Your task to perform on an android device: Open the Play Movies app and select the watchlist tab. Image 0: 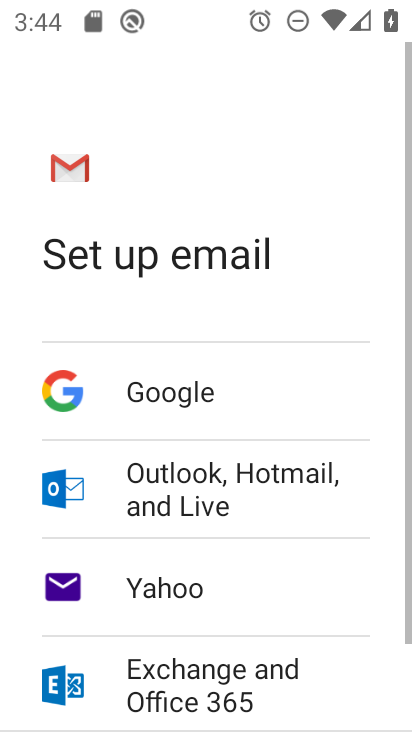
Step 0: press home button
Your task to perform on an android device: Open the Play Movies app and select the watchlist tab. Image 1: 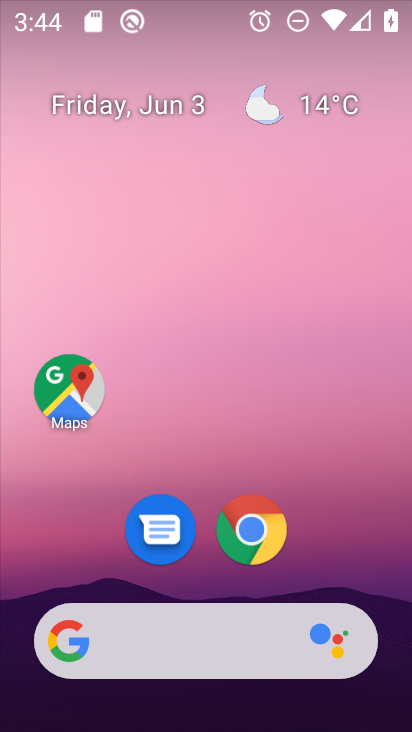
Step 1: drag from (370, 588) to (356, 135)
Your task to perform on an android device: Open the Play Movies app and select the watchlist tab. Image 2: 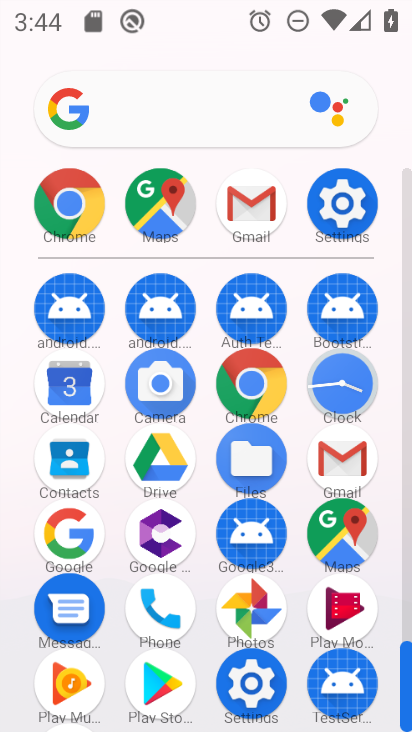
Step 2: click (344, 608)
Your task to perform on an android device: Open the Play Movies app and select the watchlist tab. Image 3: 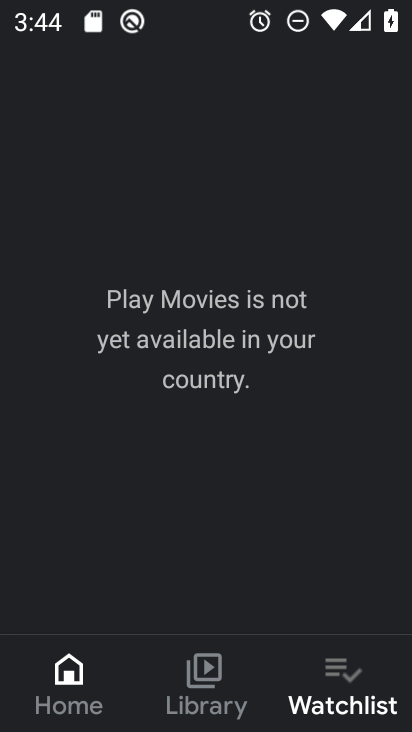
Step 3: task complete